Your task to perform on an android device: Open Wikipedia Image 0: 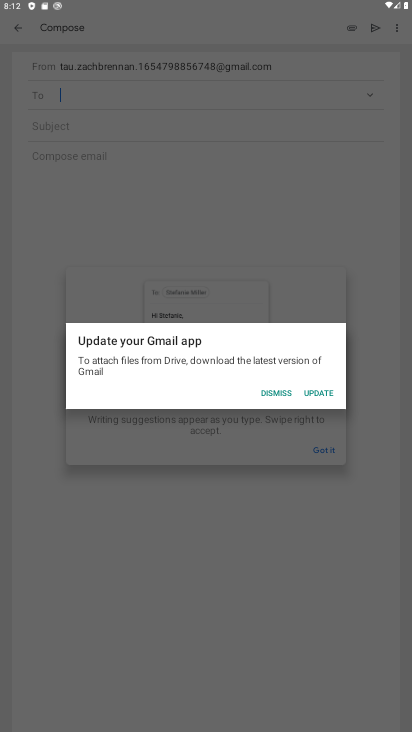
Step 0: click (144, 669)
Your task to perform on an android device: Open Wikipedia Image 1: 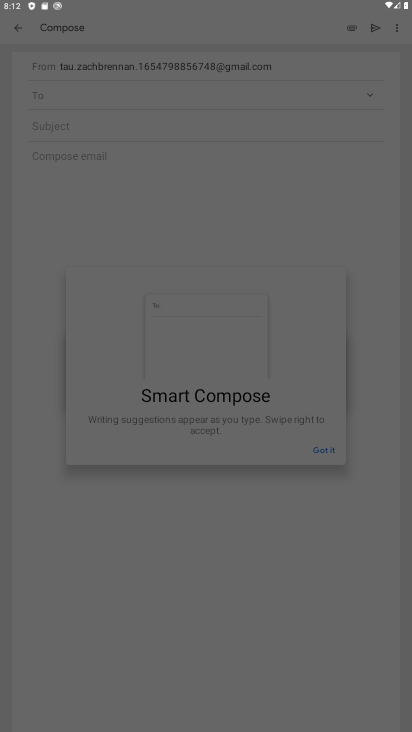
Step 1: press home button
Your task to perform on an android device: Open Wikipedia Image 2: 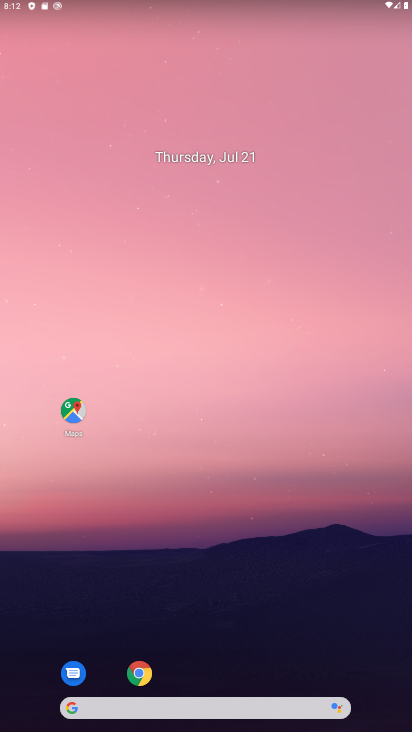
Step 2: click (148, 672)
Your task to perform on an android device: Open Wikipedia Image 3: 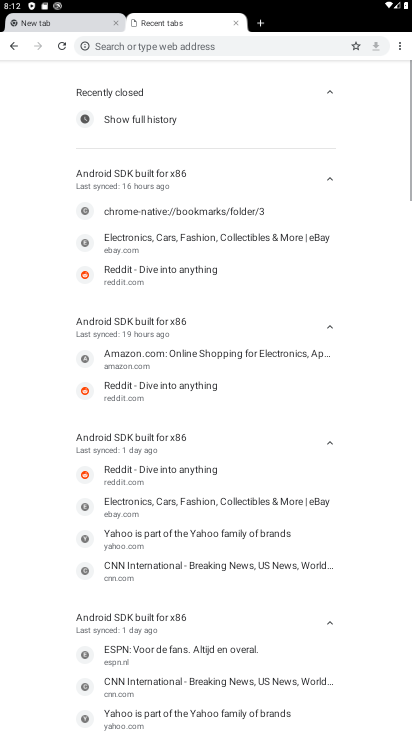
Step 3: click (256, 23)
Your task to perform on an android device: Open Wikipedia Image 4: 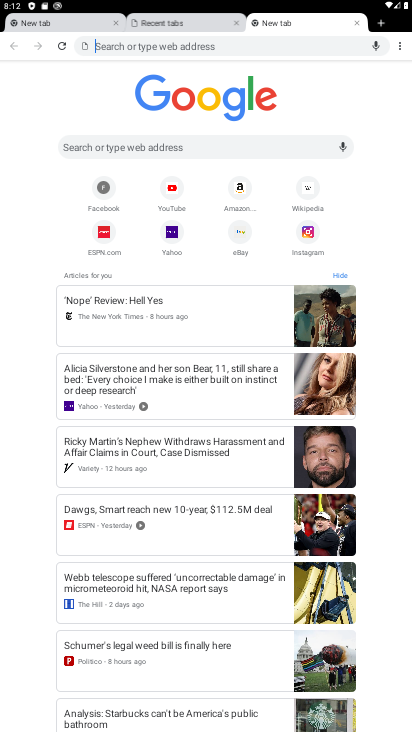
Step 4: click (313, 177)
Your task to perform on an android device: Open Wikipedia Image 5: 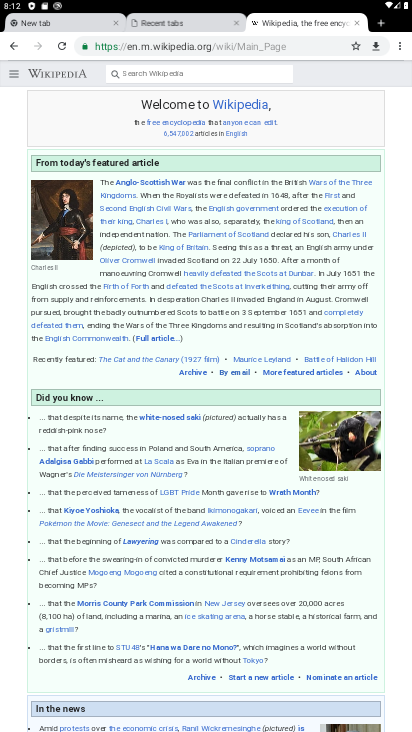
Step 5: task complete